Your task to perform on an android device: Open Youtube and go to the subscriptions tab Image 0: 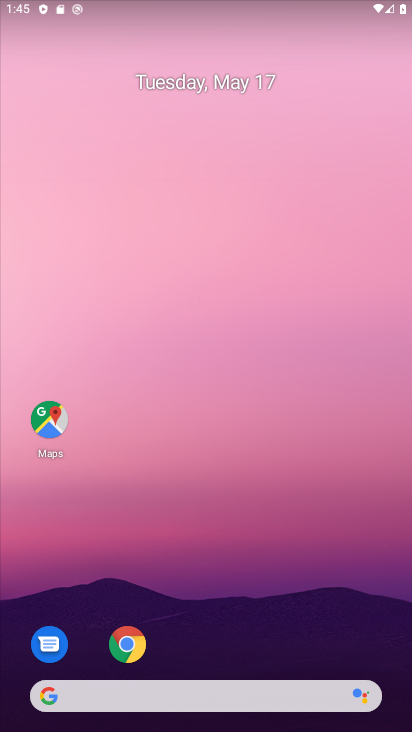
Step 0: drag from (205, 664) to (175, 27)
Your task to perform on an android device: Open Youtube and go to the subscriptions tab Image 1: 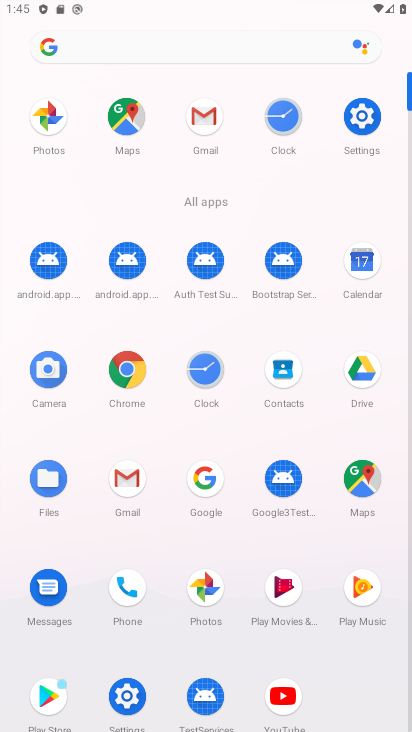
Step 1: click (283, 690)
Your task to perform on an android device: Open Youtube and go to the subscriptions tab Image 2: 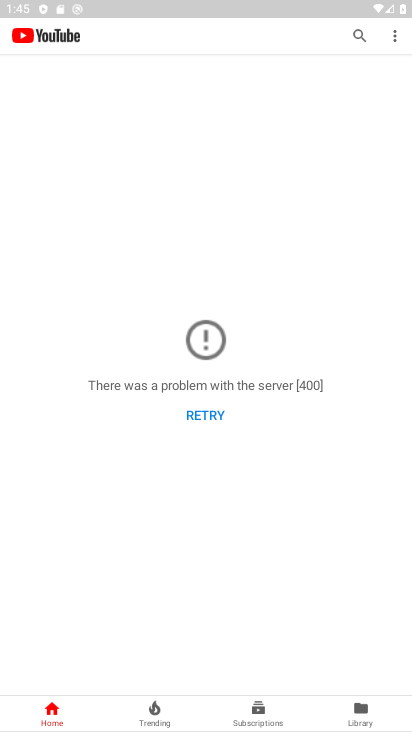
Step 2: click (256, 713)
Your task to perform on an android device: Open Youtube and go to the subscriptions tab Image 3: 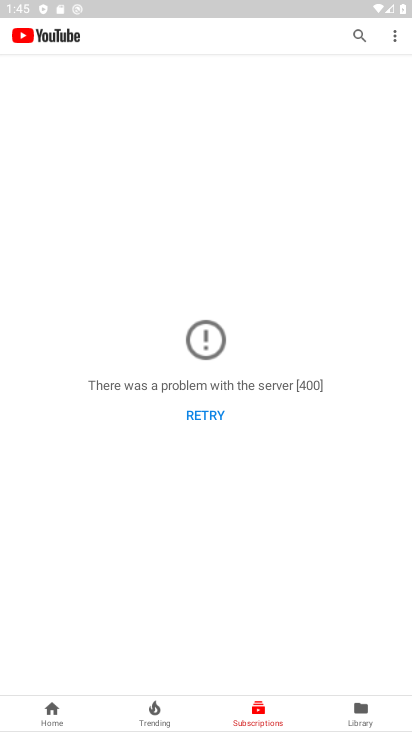
Step 3: task complete